Your task to perform on an android device: Show the shopping cart on costco. Image 0: 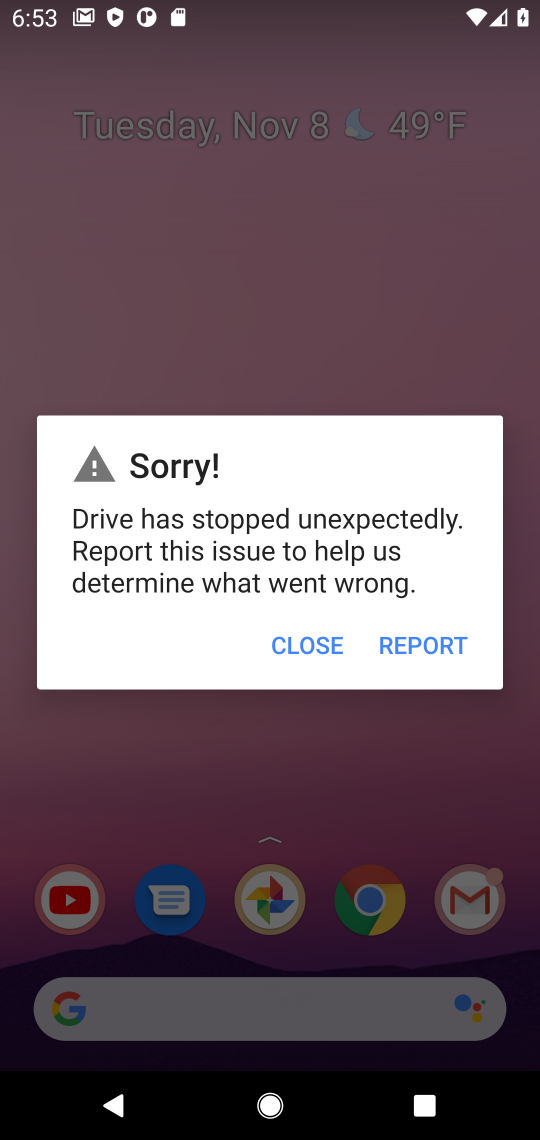
Step 0: press home button
Your task to perform on an android device: Show the shopping cart on costco. Image 1: 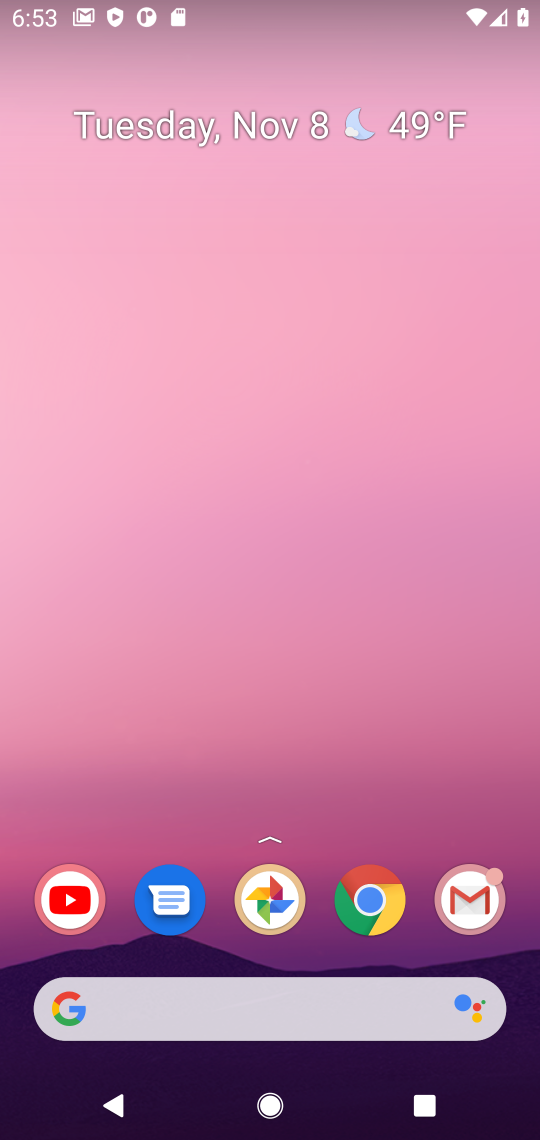
Step 1: click (382, 889)
Your task to perform on an android device: Show the shopping cart on costco. Image 2: 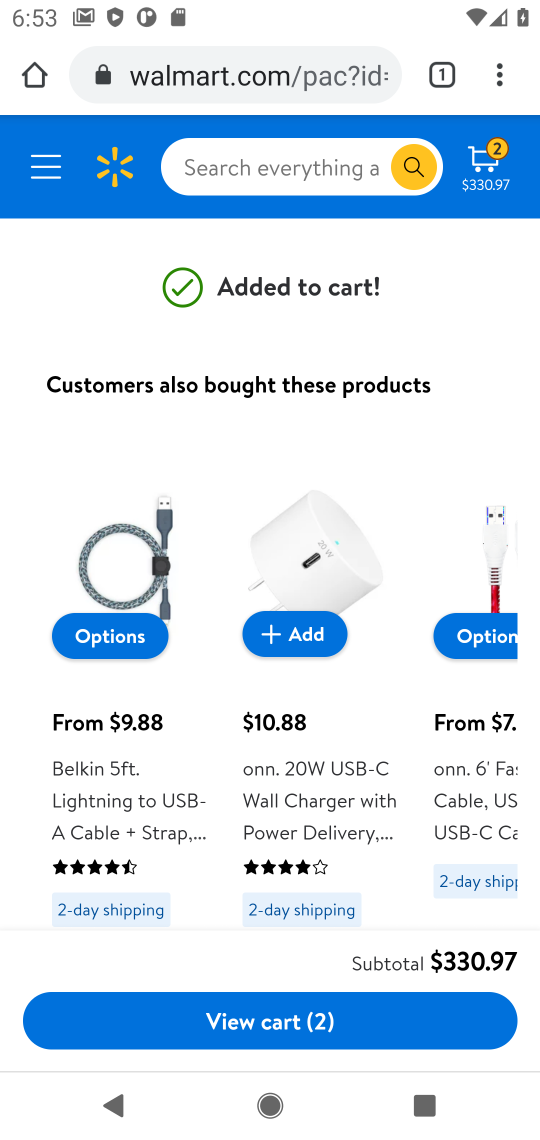
Step 2: click (249, 59)
Your task to perform on an android device: Show the shopping cart on costco. Image 3: 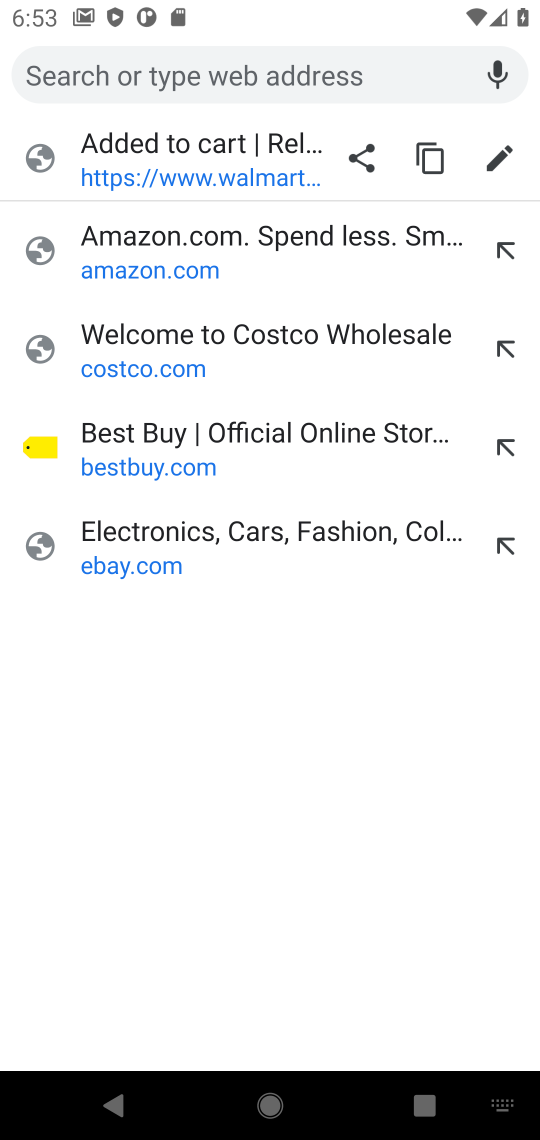
Step 3: type "costco"
Your task to perform on an android device: Show the shopping cart on costco. Image 4: 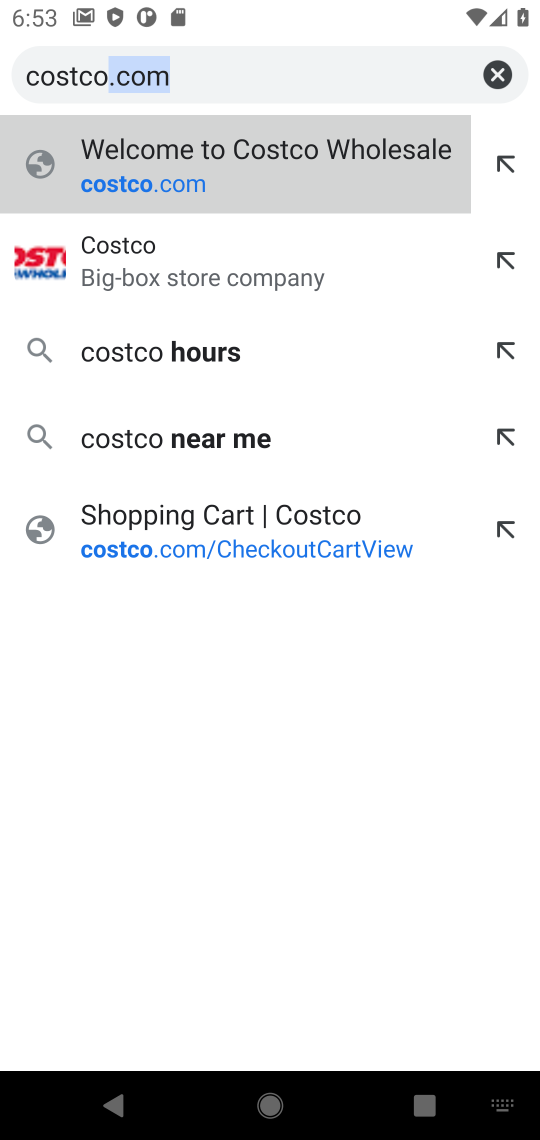
Step 4: press enter
Your task to perform on an android device: Show the shopping cart on costco. Image 5: 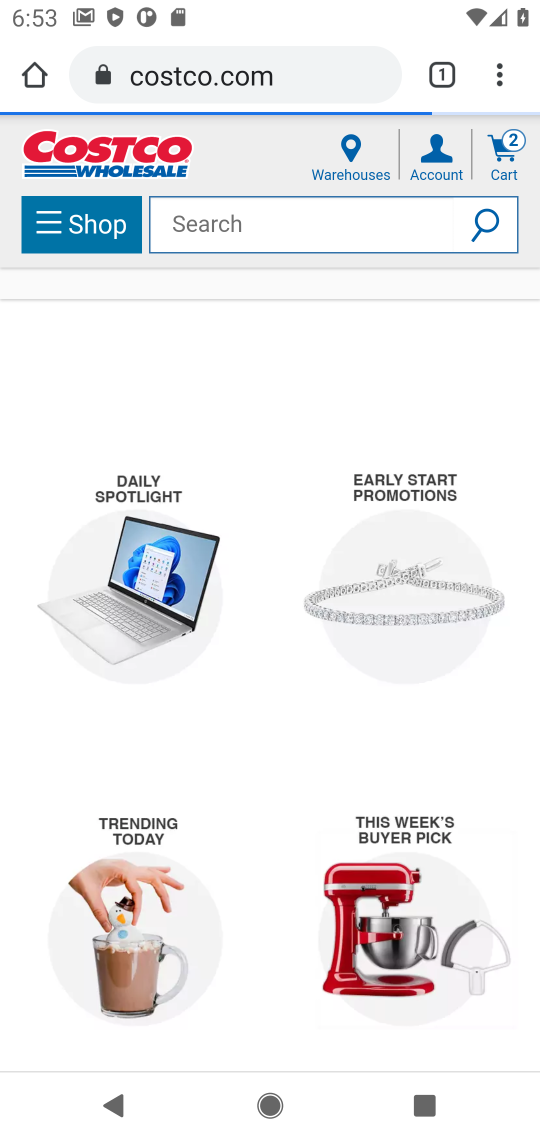
Step 5: click (491, 167)
Your task to perform on an android device: Show the shopping cart on costco. Image 6: 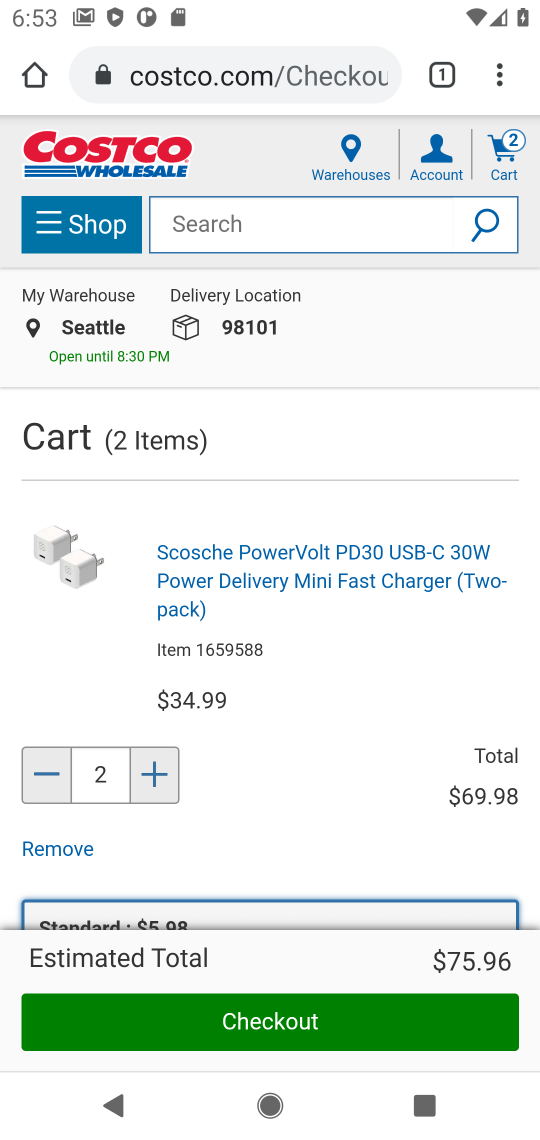
Step 6: task complete